Your task to perform on an android device: Do I have any events today? Image 0: 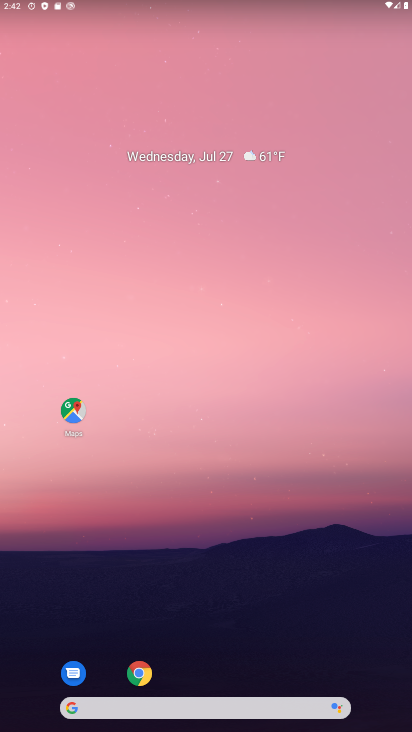
Step 0: drag from (38, 656) to (245, 123)
Your task to perform on an android device: Do I have any events today? Image 1: 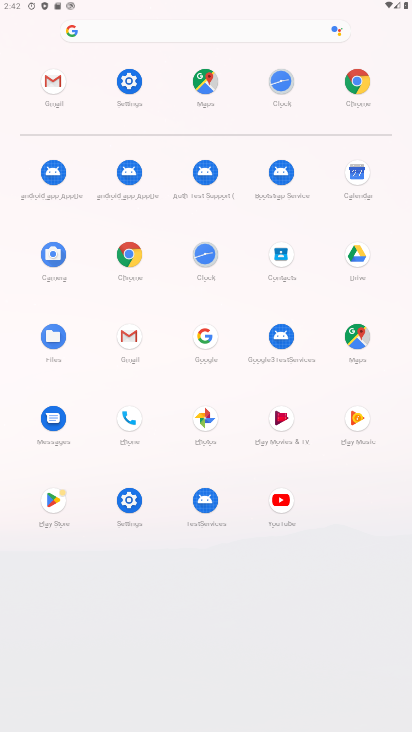
Step 1: click (346, 167)
Your task to perform on an android device: Do I have any events today? Image 2: 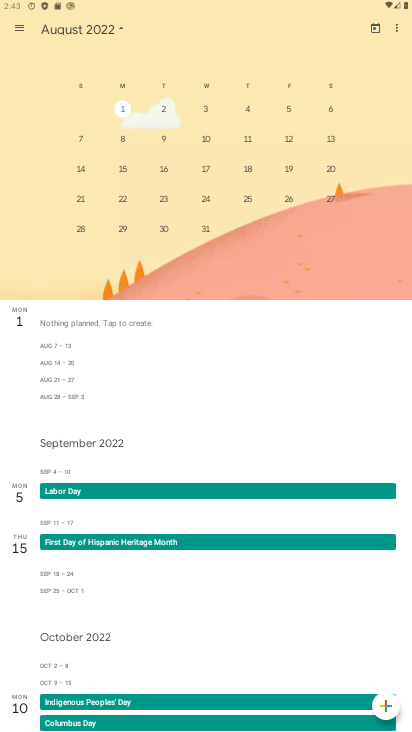
Step 2: task complete